Your task to perform on an android device: Go to settings Image 0: 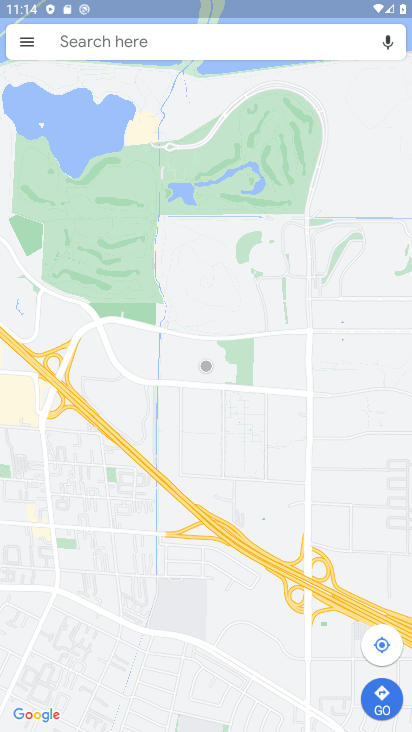
Step 0: press home button
Your task to perform on an android device: Go to settings Image 1: 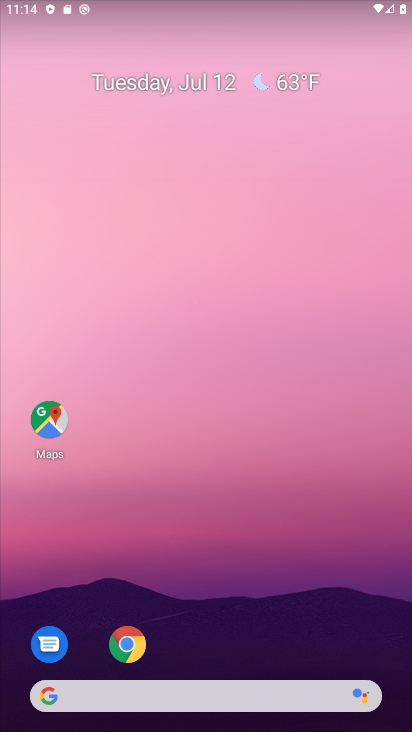
Step 1: drag from (200, 689) to (231, 180)
Your task to perform on an android device: Go to settings Image 2: 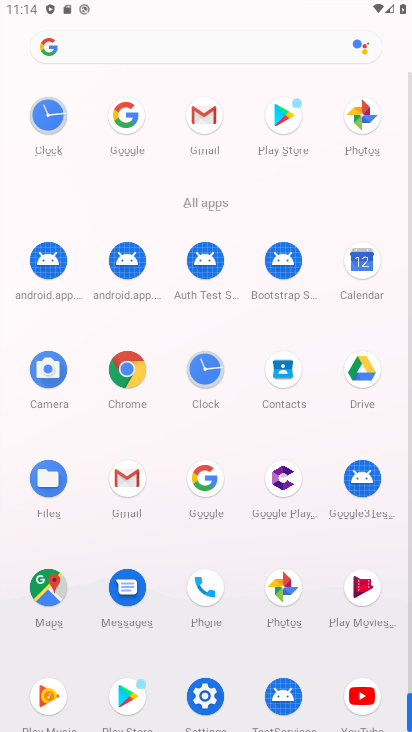
Step 2: click (206, 697)
Your task to perform on an android device: Go to settings Image 3: 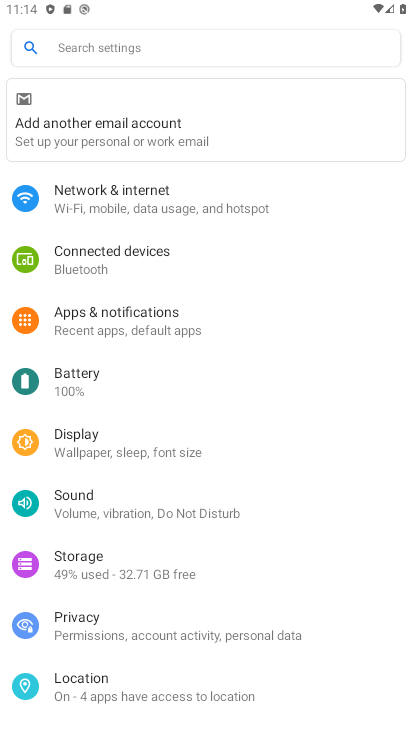
Step 3: task complete